Your task to perform on an android device: Open ESPN.com Image 0: 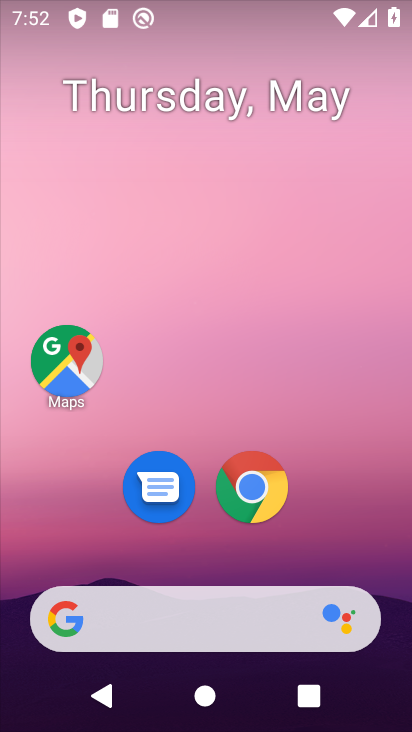
Step 0: click (220, 502)
Your task to perform on an android device: Open ESPN.com Image 1: 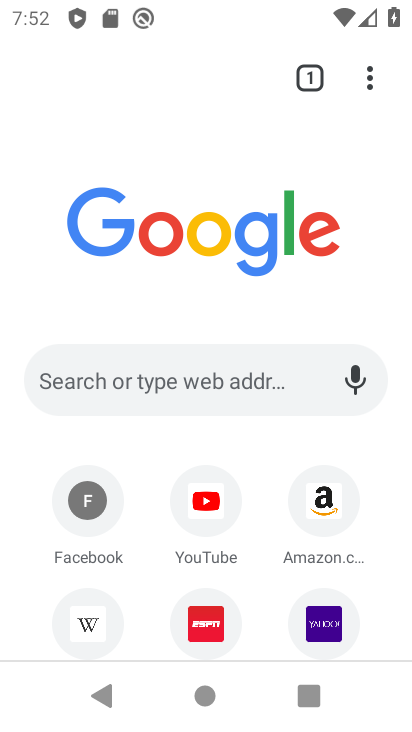
Step 1: click (212, 621)
Your task to perform on an android device: Open ESPN.com Image 2: 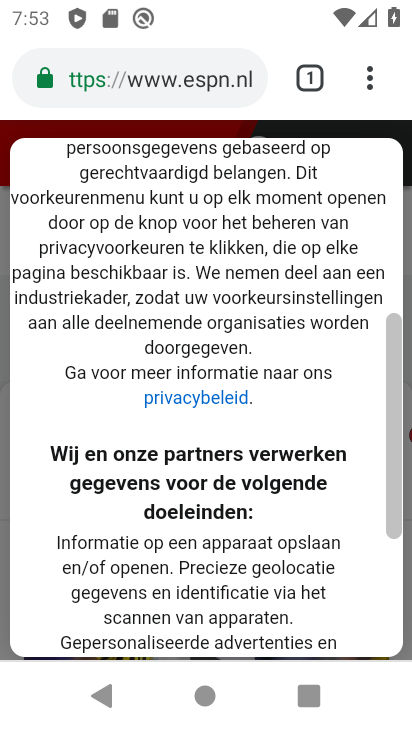
Step 2: task complete